Your task to perform on an android device: Go to battery settings Image 0: 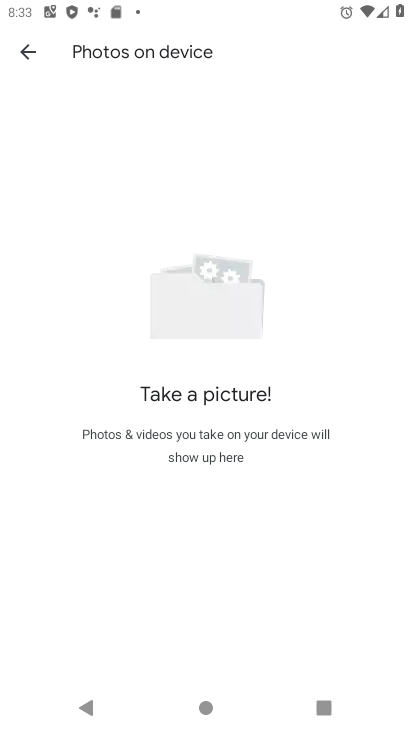
Step 0: press back button
Your task to perform on an android device: Go to battery settings Image 1: 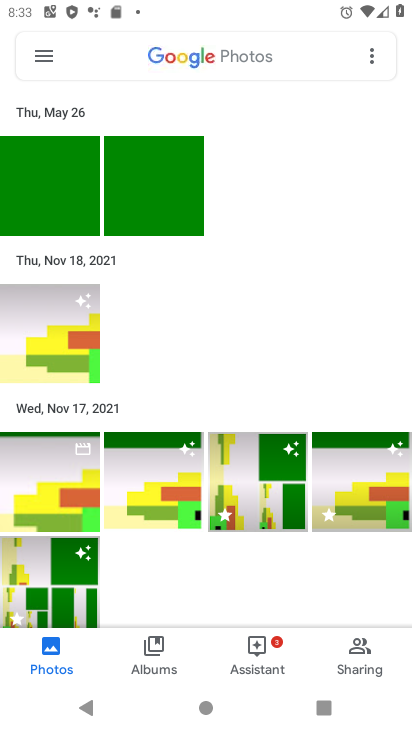
Step 1: press home button
Your task to perform on an android device: Go to battery settings Image 2: 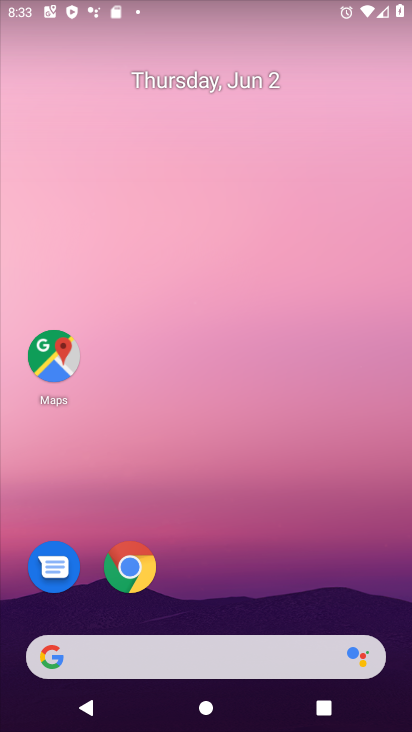
Step 2: drag from (239, 576) to (250, 154)
Your task to perform on an android device: Go to battery settings Image 3: 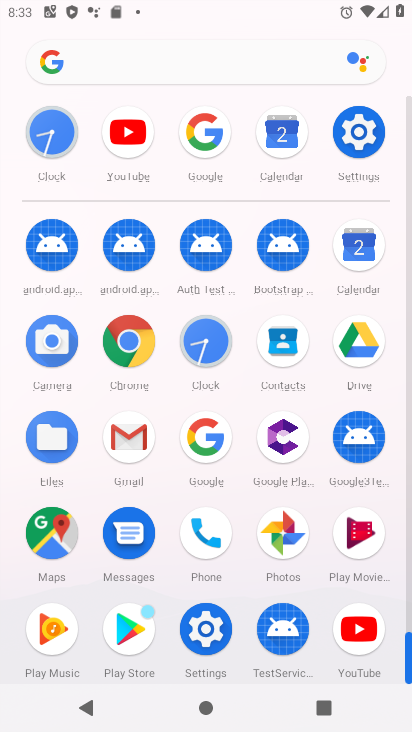
Step 3: click (358, 134)
Your task to perform on an android device: Go to battery settings Image 4: 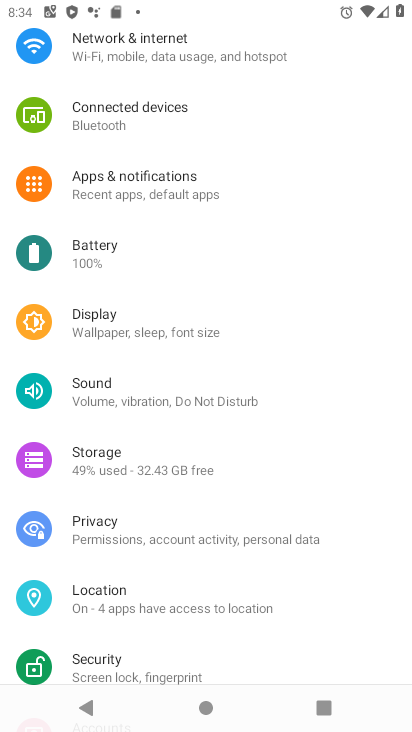
Step 4: click (107, 250)
Your task to perform on an android device: Go to battery settings Image 5: 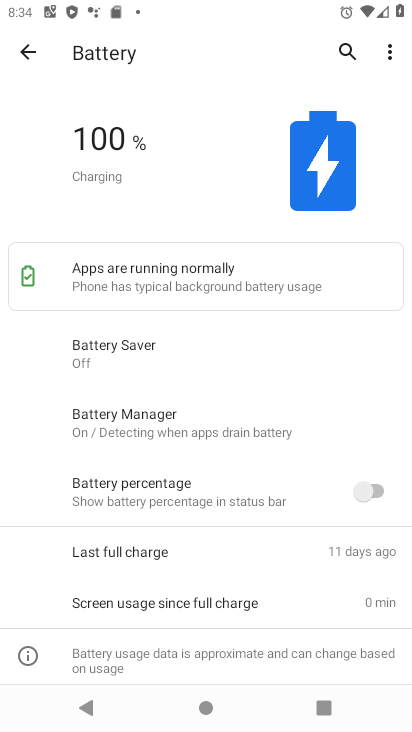
Step 5: task complete